Your task to perform on an android device: open wifi settings Image 0: 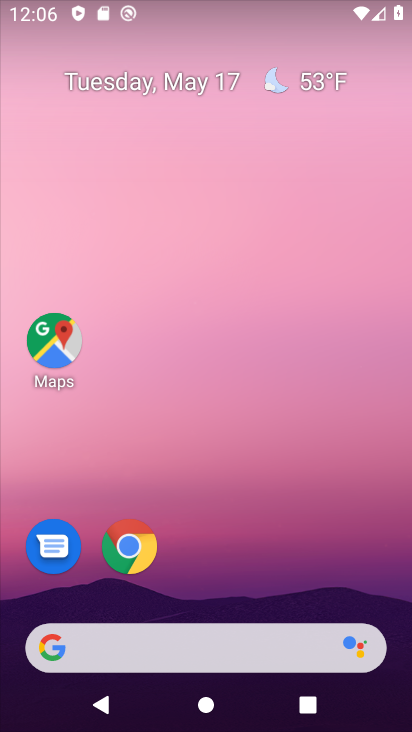
Step 0: drag from (196, 653) to (346, 147)
Your task to perform on an android device: open wifi settings Image 1: 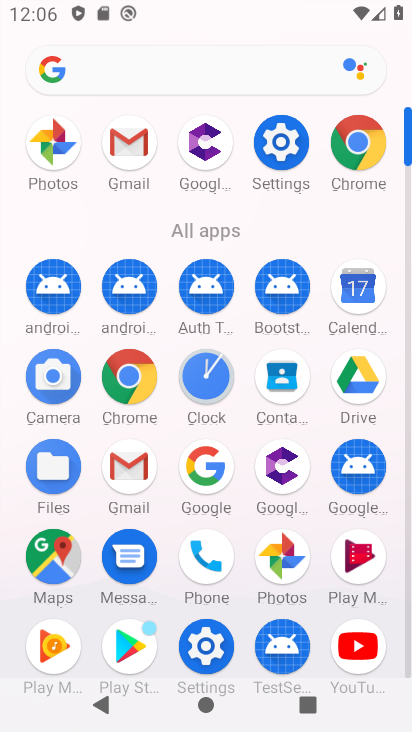
Step 1: click (282, 155)
Your task to perform on an android device: open wifi settings Image 2: 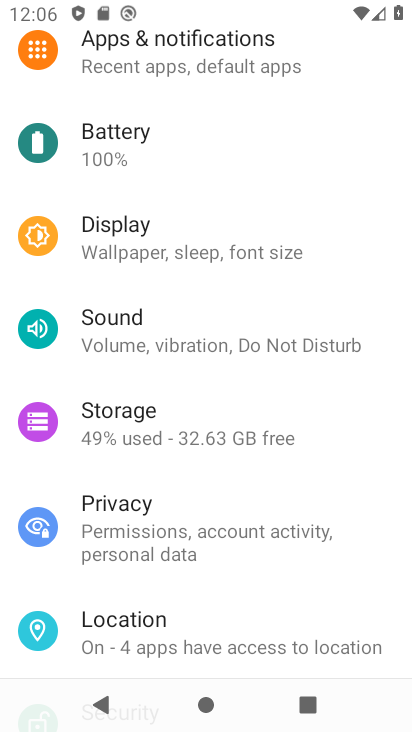
Step 2: drag from (301, 103) to (261, 560)
Your task to perform on an android device: open wifi settings Image 3: 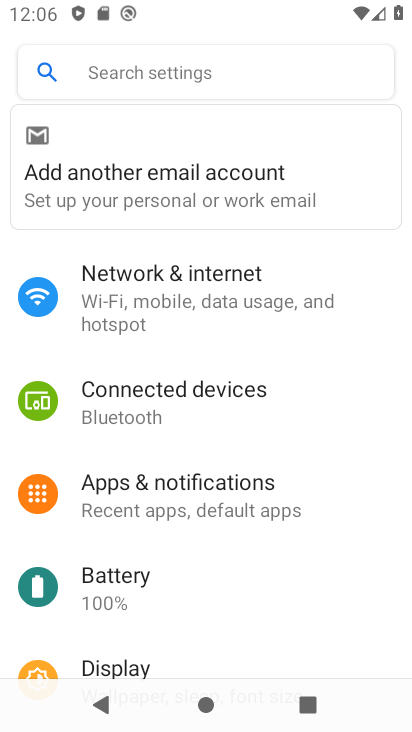
Step 3: click (242, 295)
Your task to perform on an android device: open wifi settings Image 4: 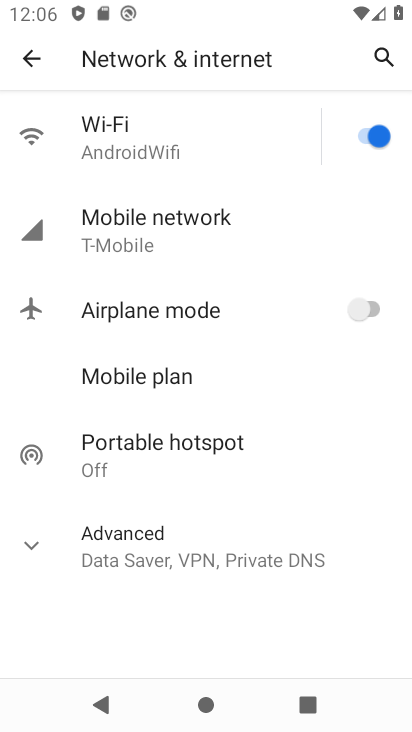
Step 4: click (117, 152)
Your task to perform on an android device: open wifi settings Image 5: 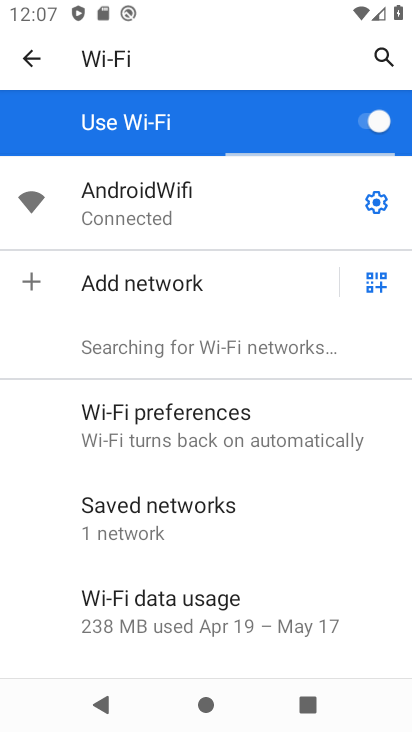
Step 5: task complete